Your task to perform on an android device: find which apps use the phone's location Image 0: 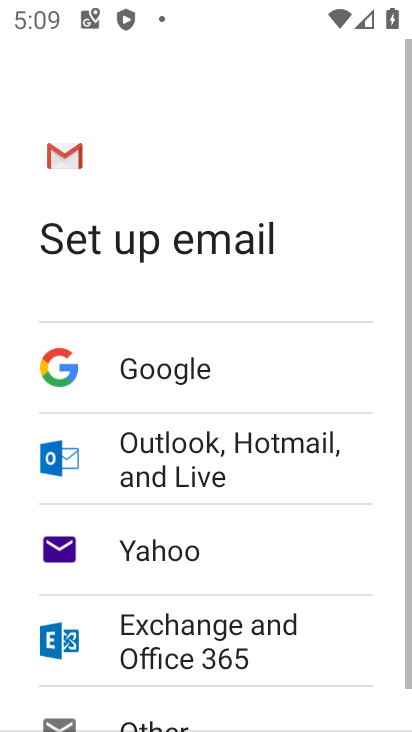
Step 0: press home button
Your task to perform on an android device: find which apps use the phone's location Image 1: 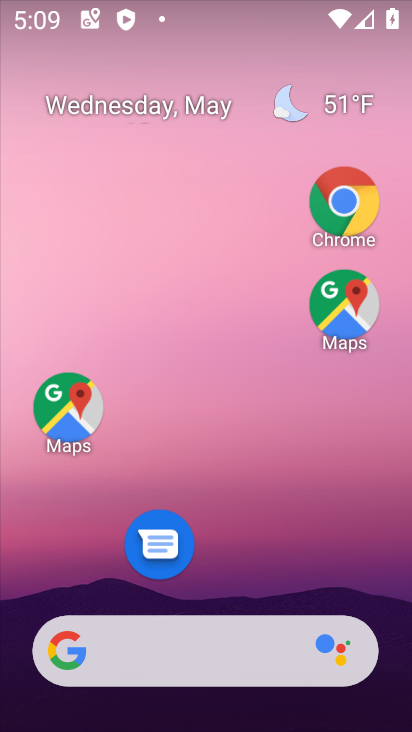
Step 1: drag from (273, 591) to (257, 97)
Your task to perform on an android device: find which apps use the phone's location Image 2: 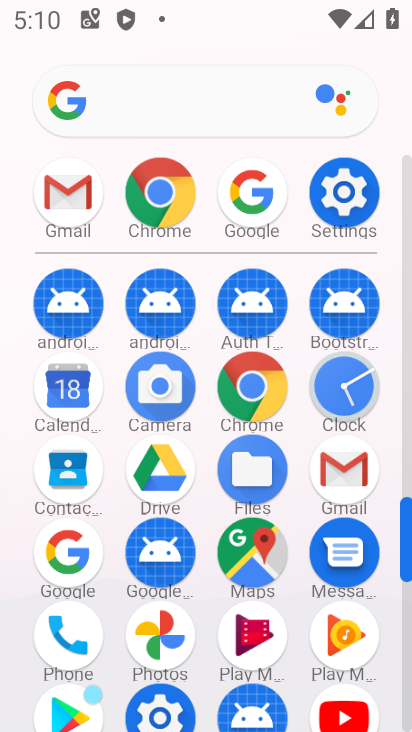
Step 2: click (346, 204)
Your task to perform on an android device: find which apps use the phone's location Image 3: 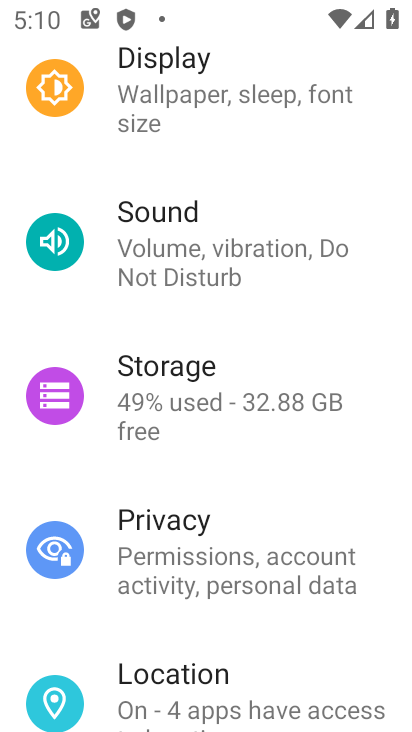
Step 3: click (176, 691)
Your task to perform on an android device: find which apps use the phone's location Image 4: 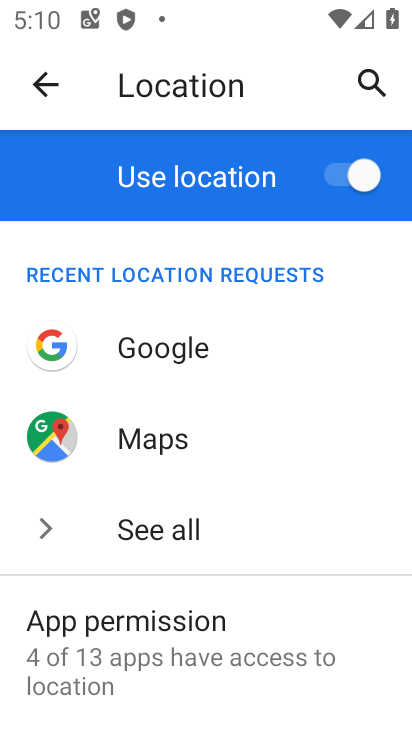
Step 4: drag from (216, 651) to (210, 410)
Your task to perform on an android device: find which apps use the phone's location Image 5: 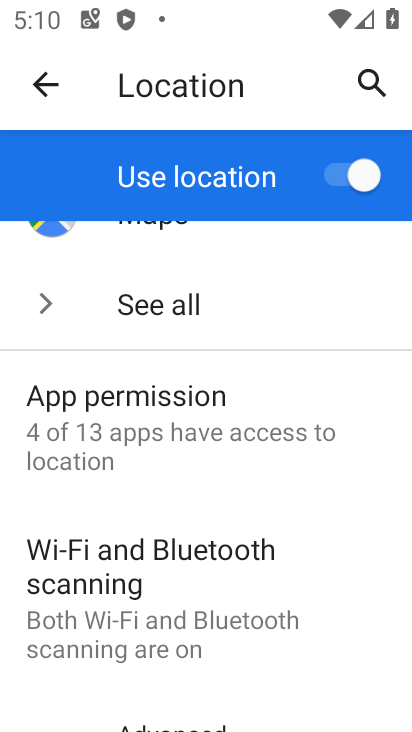
Step 5: drag from (228, 595) to (234, 346)
Your task to perform on an android device: find which apps use the phone's location Image 6: 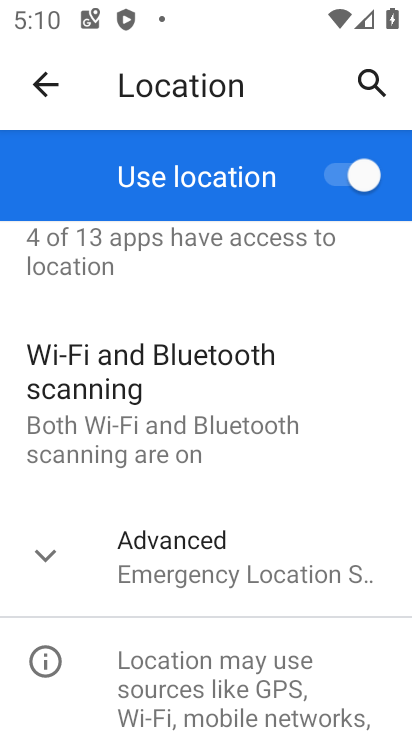
Step 6: click (87, 271)
Your task to perform on an android device: find which apps use the phone's location Image 7: 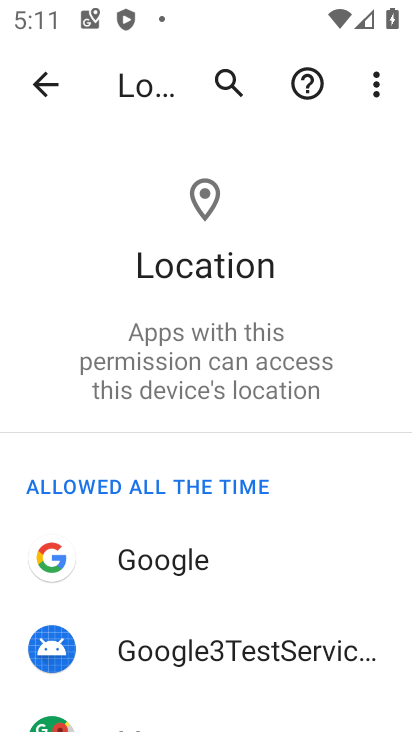
Step 7: task complete